Your task to perform on an android device: Open Chrome and go to the settings page Image 0: 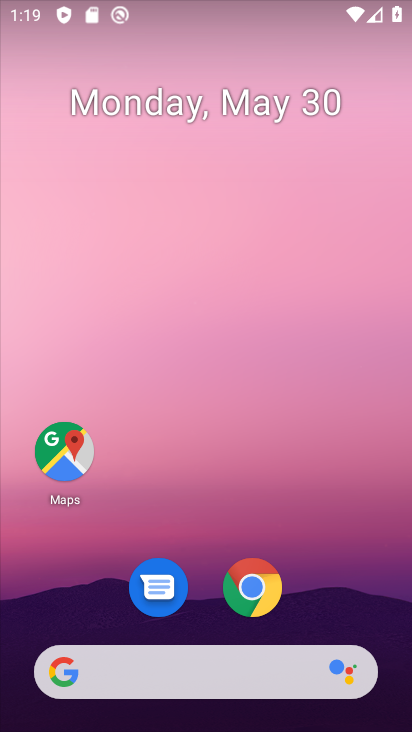
Step 0: click (260, 568)
Your task to perform on an android device: Open Chrome and go to the settings page Image 1: 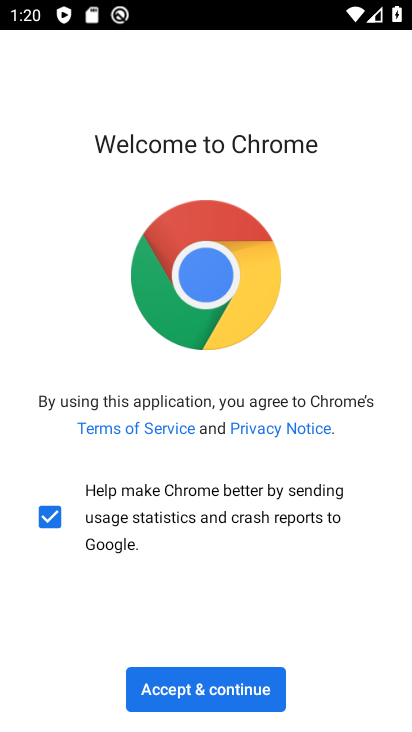
Step 1: click (220, 680)
Your task to perform on an android device: Open Chrome and go to the settings page Image 2: 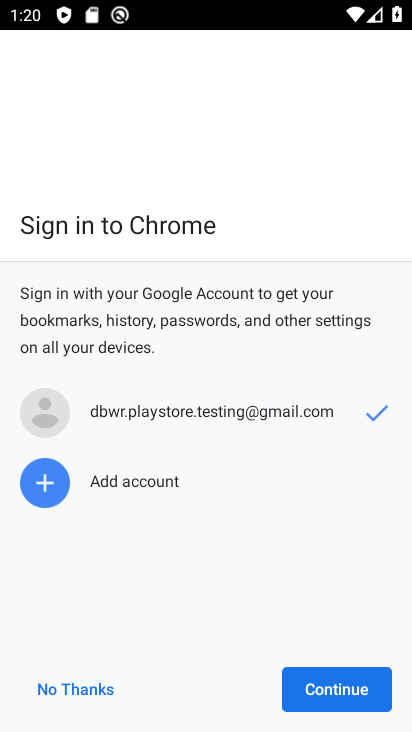
Step 2: click (340, 694)
Your task to perform on an android device: Open Chrome and go to the settings page Image 3: 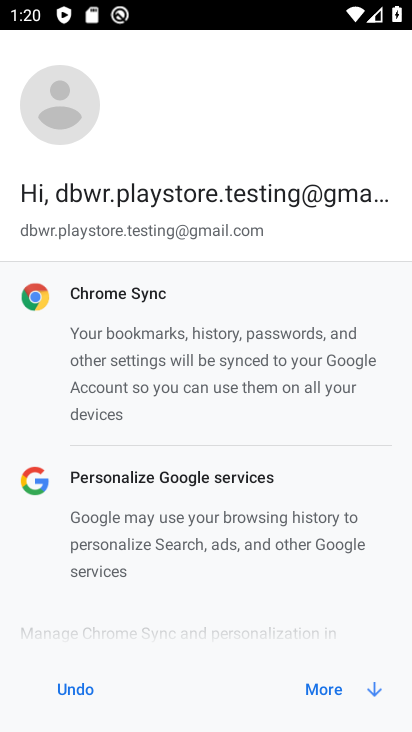
Step 3: click (330, 686)
Your task to perform on an android device: Open Chrome and go to the settings page Image 4: 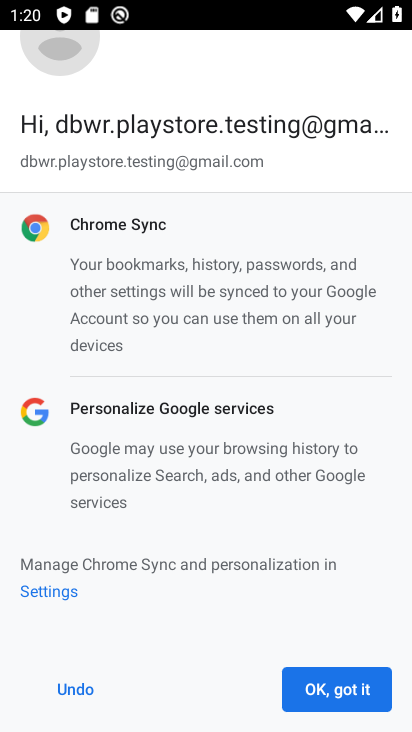
Step 4: click (335, 693)
Your task to perform on an android device: Open Chrome and go to the settings page Image 5: 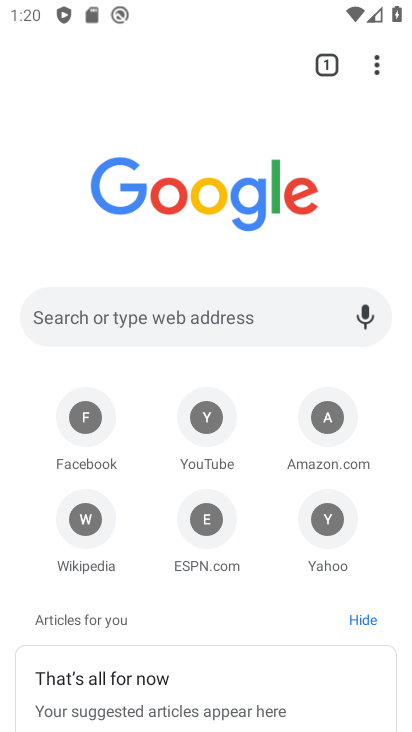
Step 5: click (377, 67)
Your task to perform on an android device: Open Chrome and go to the settings page Image 6: 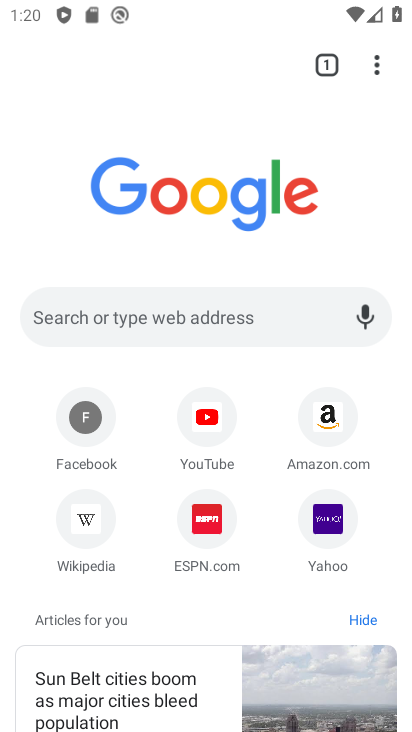
Step 6: click (377, 67)
Your task to perform on an android device: Open Chrome and go to the settings page Image 7: 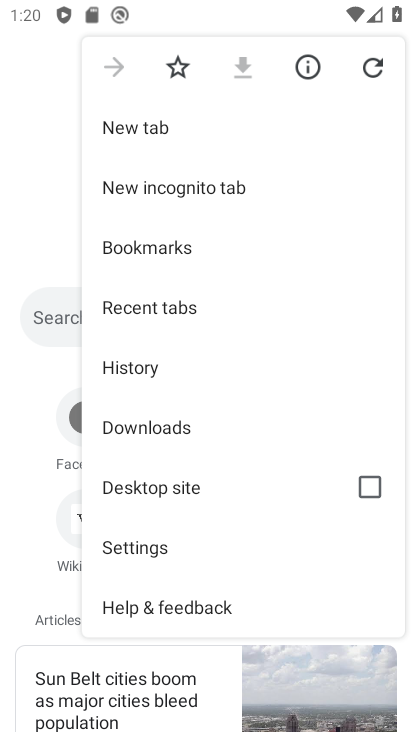
Step 7: click (158, 556)
Your task to perform on an android device: Open Chrome and go to the settings page Image 8: 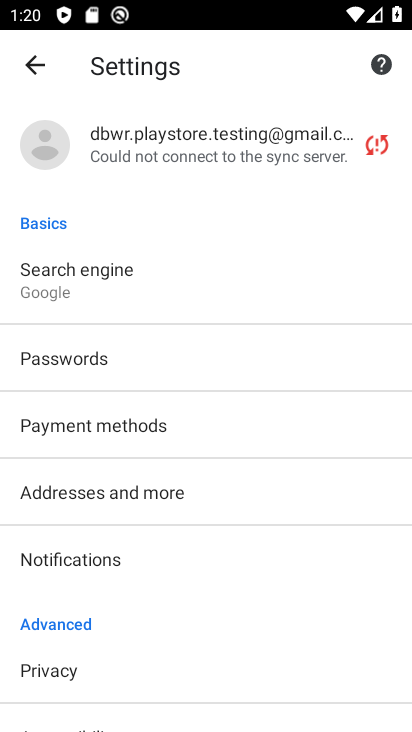
Step 8: task complete